Your task to perform on an android device: check data usage Image 0: 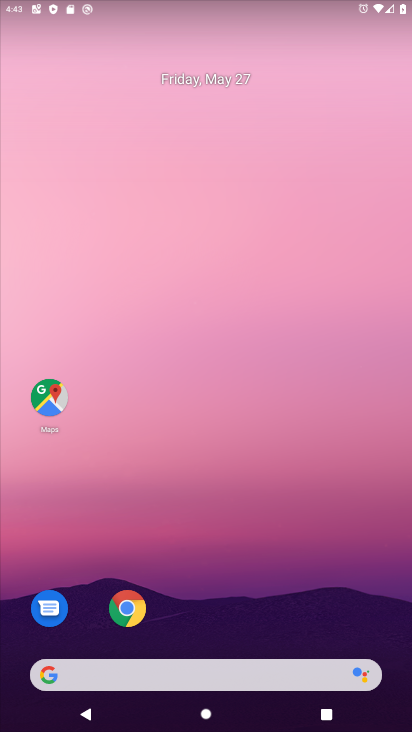
Step 0: drag from (163, 620) to (167, 281)
Your task to perform on an android device: check data usage Image 1: 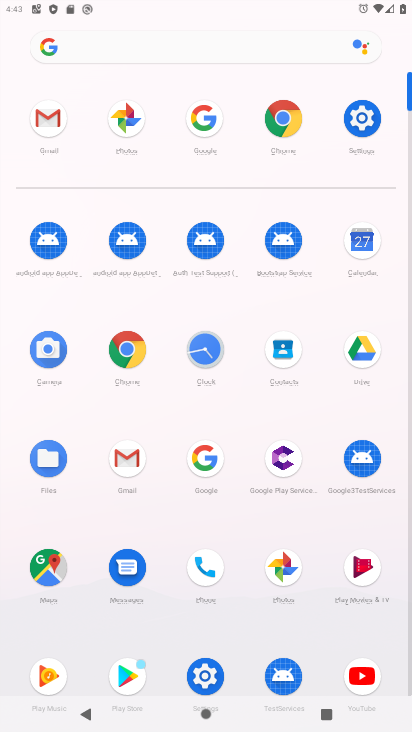
Step 1: click (353, 118)
Your task to perform on an android device: check data usage Image 2: 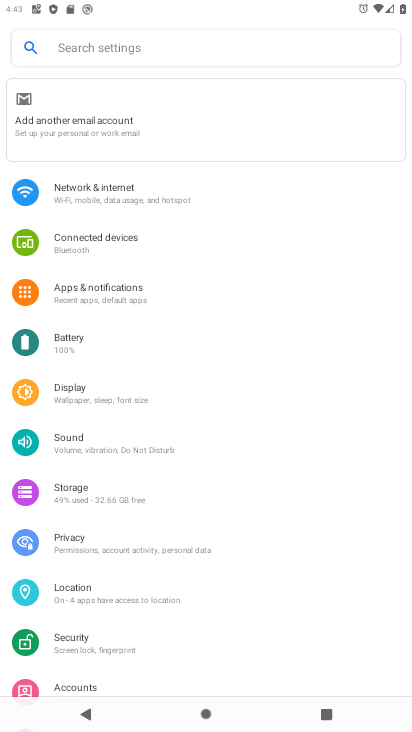
Step 2: click (112, 200)
Your task to perform on an android device: check data usage Image 3: 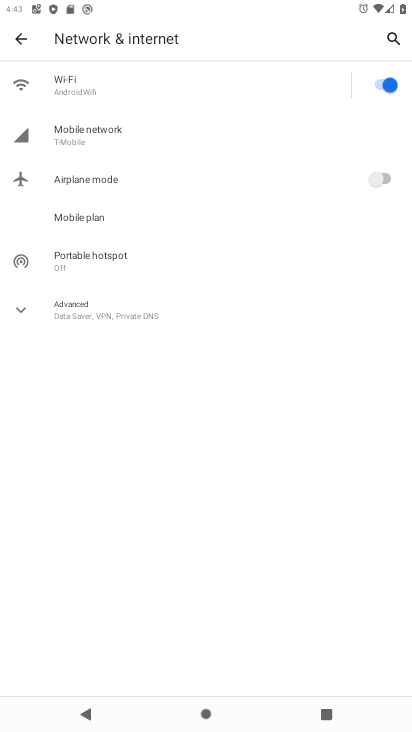
Step 3: click (70, 132)
Your task to perform on an android device: check data usage Image 4: 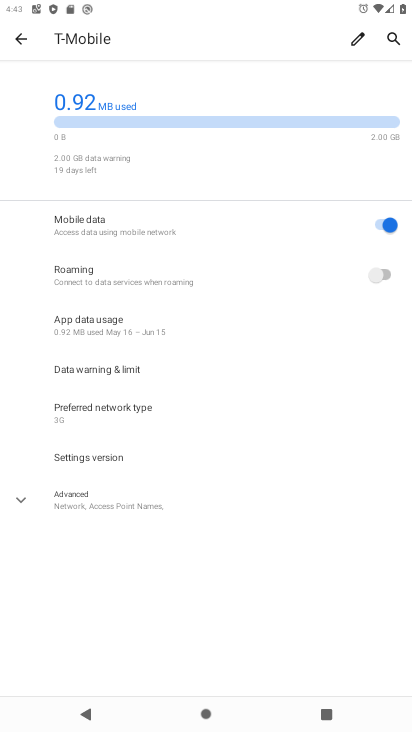
Step 4: task complete